Your task to perform on an android device: Play the last video I watched on Youtube Image 0: 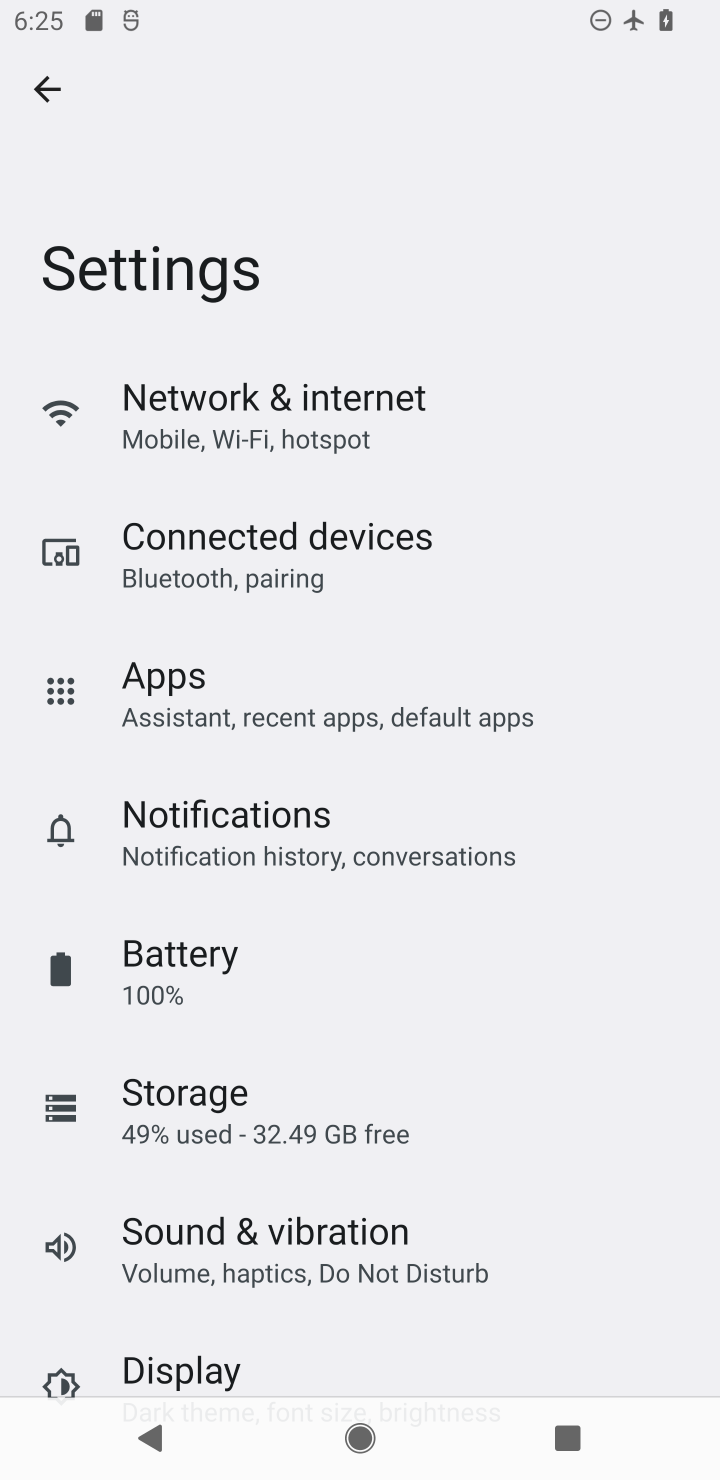
Step 0: press home button
Your task to perform on an android device: Play the last video I watched on Youtube Image 1: 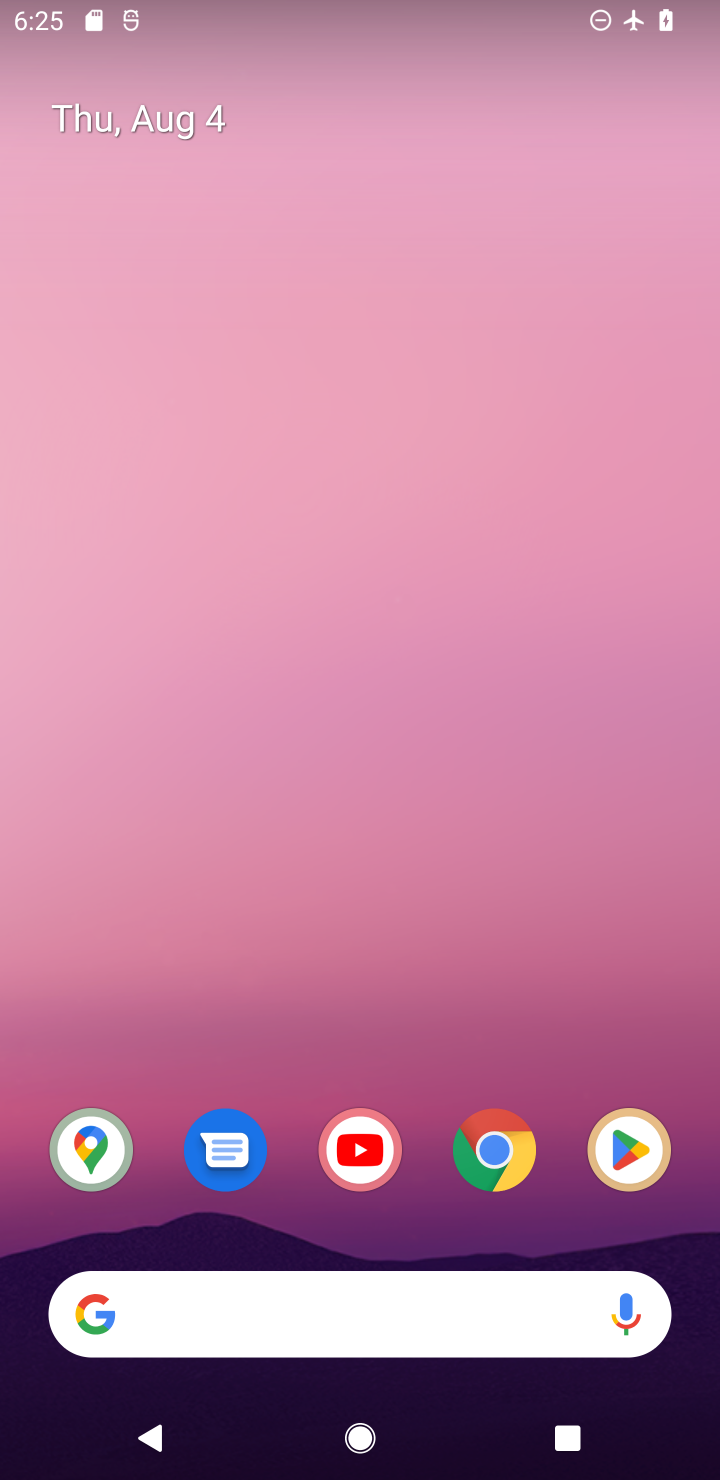
Step 1: drag from (373, 1311) to (434, 35)
Your task to perform on an android device: Play the last video I watched on Youtube Image 2: 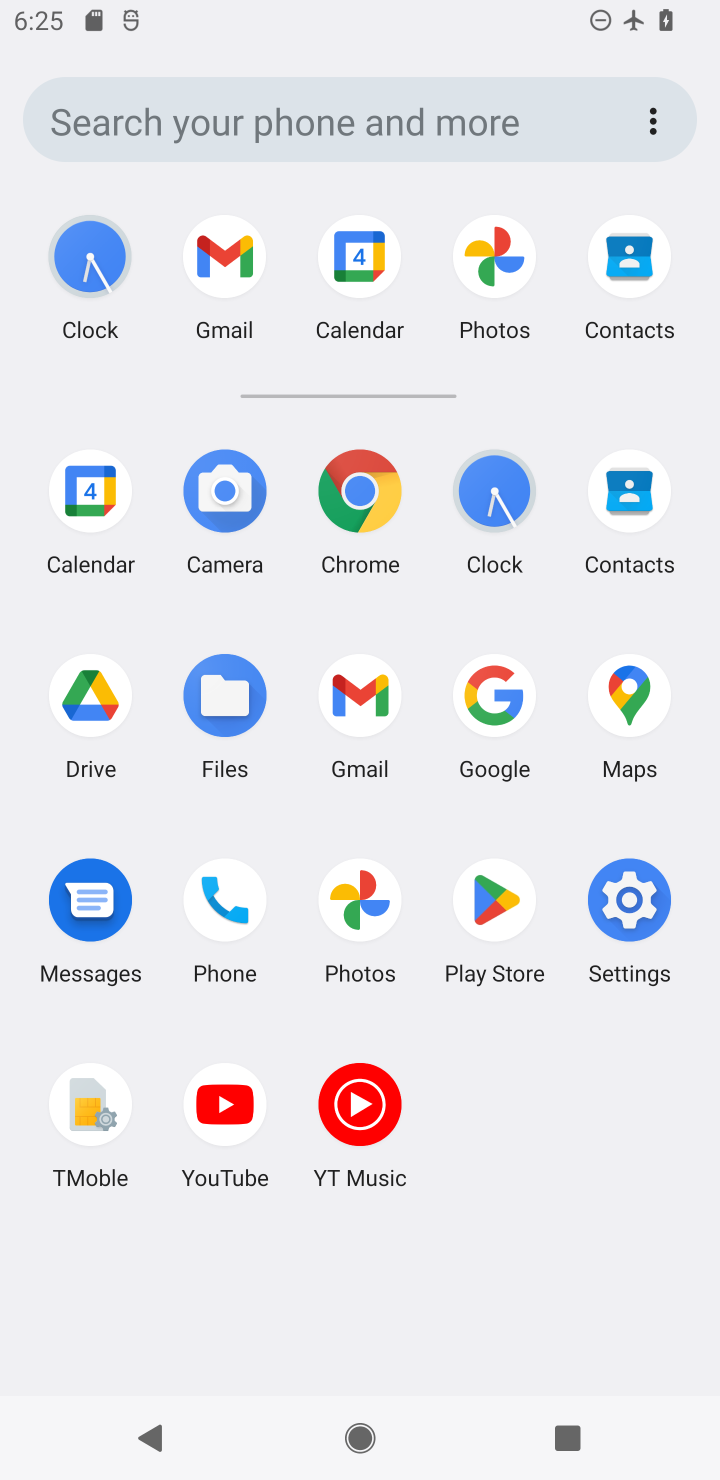
Step 2: click (214, 1104)
Your task to perform on an android device: Play the last video I watched on Youtube Image 3: 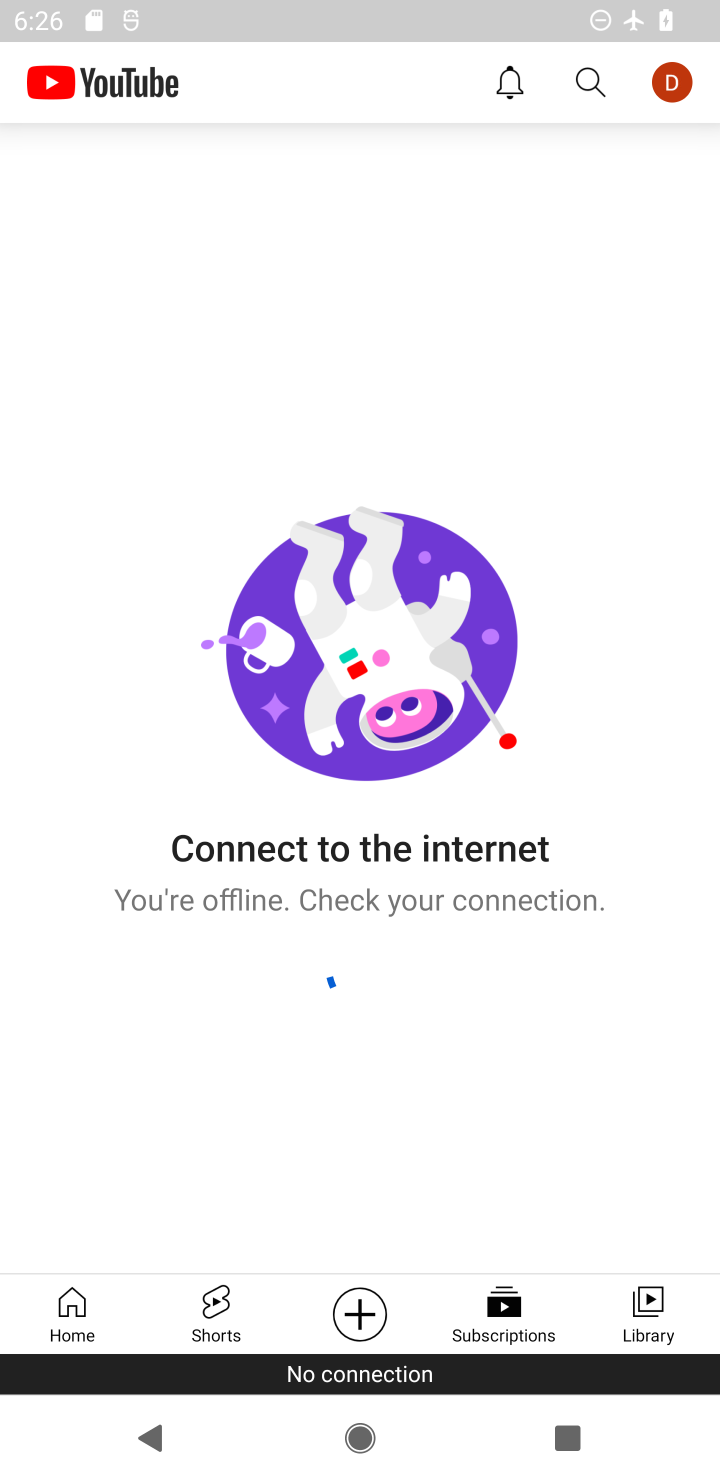
Step 3: task complete